Your task to perform on an android device: Open Google Maps and go to "Timeline" Image 0: 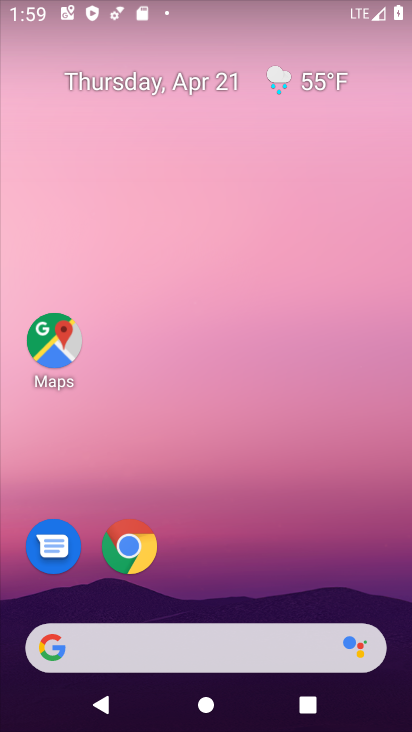
Step 0: click (50, 339)
Your task to perform on an android device: Open Google Maps and go to "Timeline" Image 1: 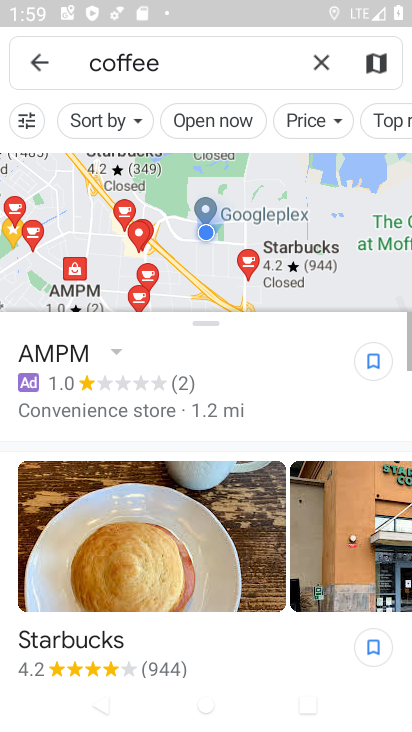
Step 1: click (60, 60)
Your task to perform on an android device: Open Google Maps and go to "Timeline" Image 2: 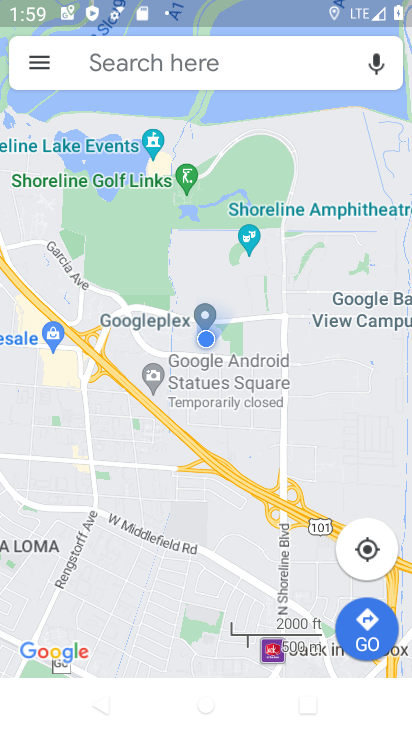
Step 2: click (51, 59)
Your task to perform on an android device: Open Google Maps and go to "Timeline" Image 3: 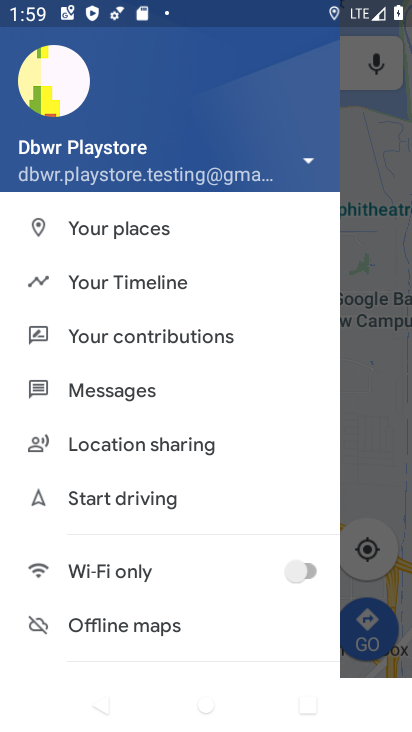
Step 3: click (198, 284)
Your task to perform on an android device: Open Google Maps and go to "Timeline" Image 4: 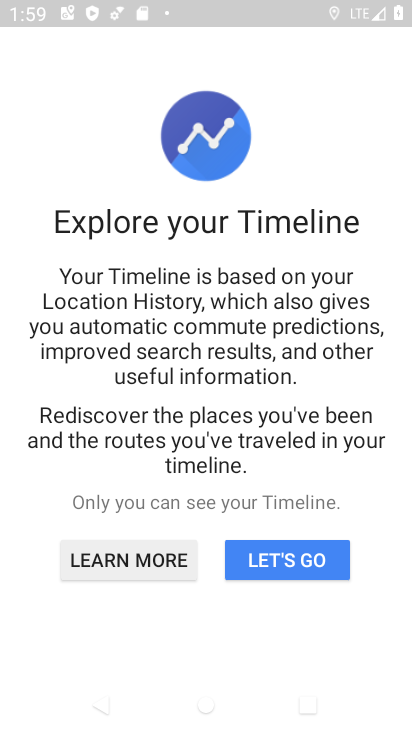
Step 4: click (273, 563)
Your task to perform on an android device: Open Google Maps and go to "Timeline" Image 5: 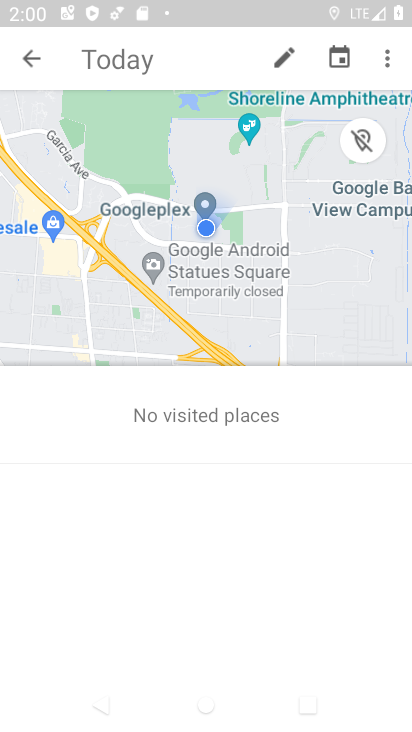
Step 5: click (35, 72)
Your task to perform on an android device: Open Google Maps and go to "Timeline" Image 6: 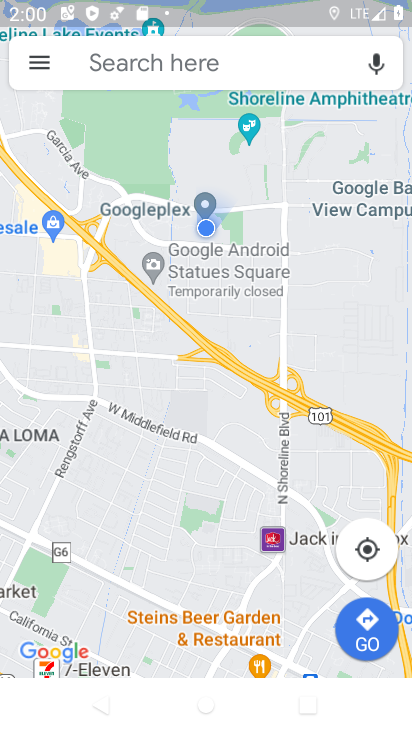
Step 6: click (38, 71)
Your task to perform on an android device: Open Google Maps and go to "Timeline" Image 7: 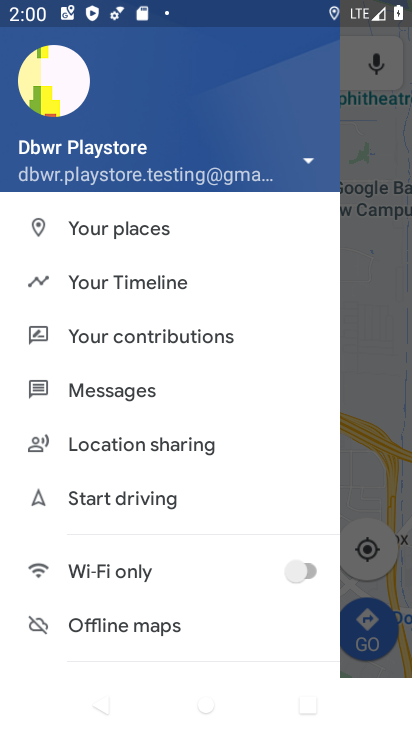
Step 7: click (206, 297)
Your task to perform on an android device: Open Google Maps and go to "Timeline" Image 8: 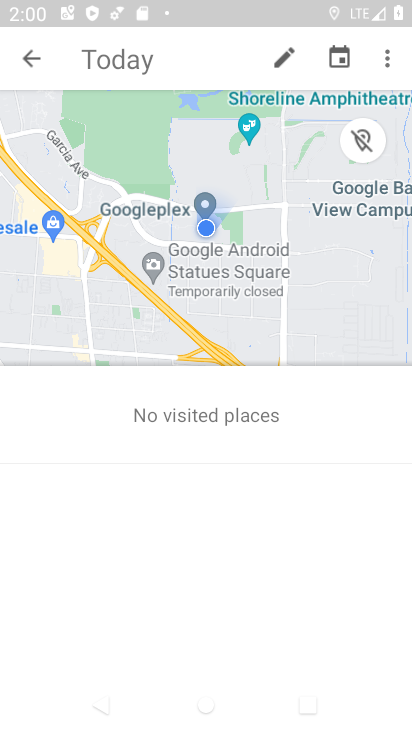
Step 8: task complete